Your task to perform on an android device: Open Wikipedia Image 0: 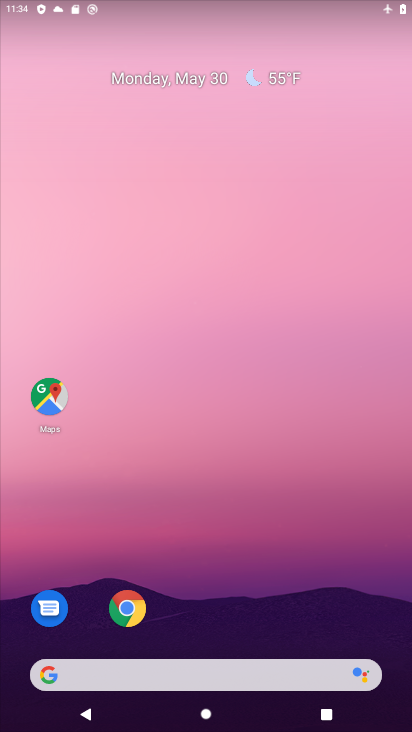
Step 0: click (132, 610)
Your task to perform on an android device: Open Wikipedia Image 1: 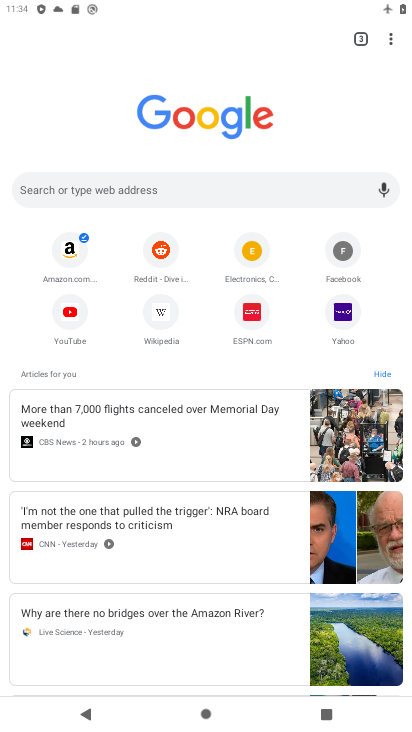
Step 1: click (156, 318)
Your task to perform on an android device: Open Wikipedia Image 2: 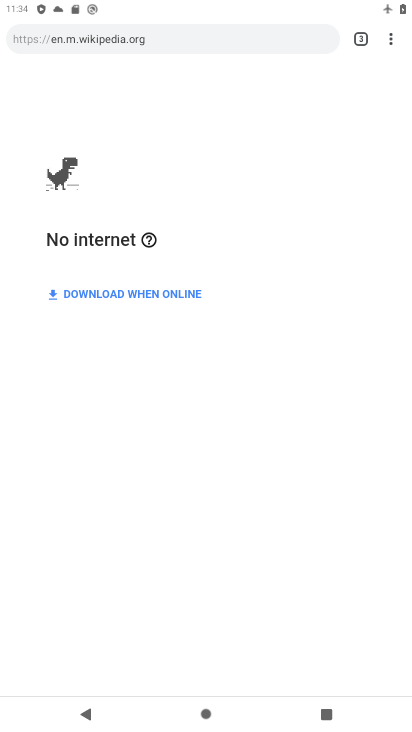
Step 2: task complete